Your task to perform on an android device: Go to Yahoo.com Image 0: 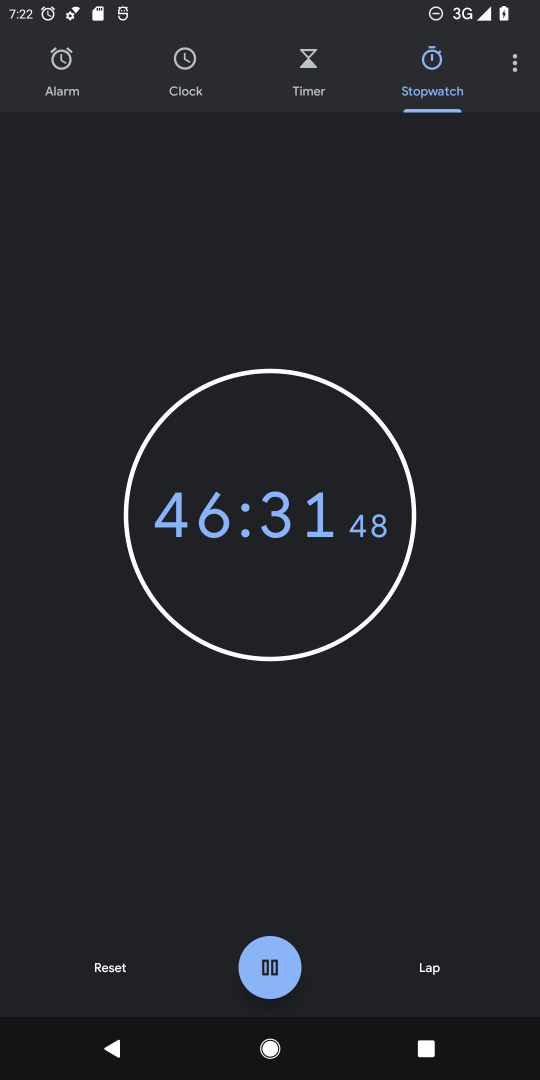
Step 0: press home button
Your task to perform on an android device: Go to Yahoo.com Image 1: 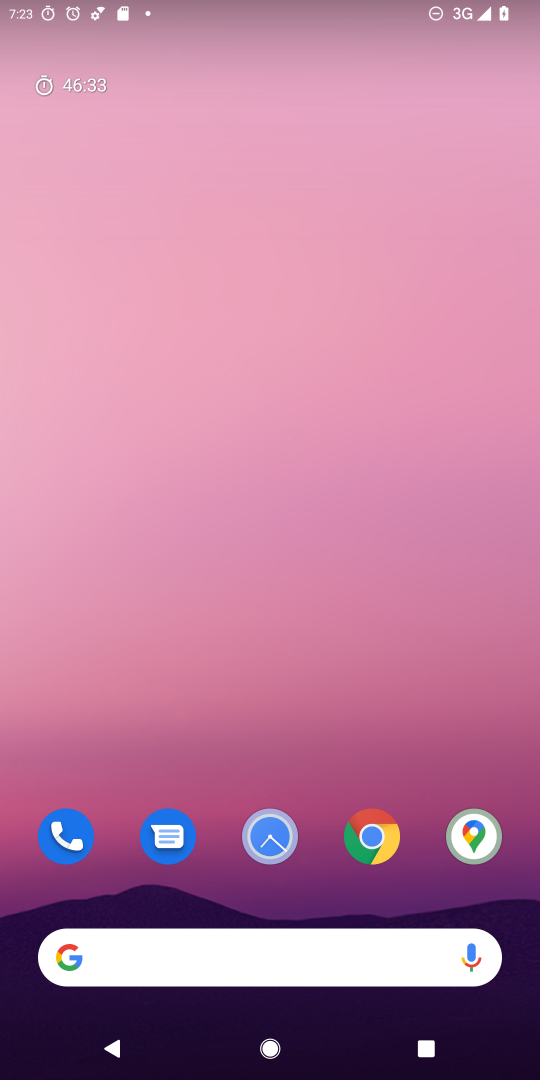
Step 1: drag from (330, 868) to (367, 213)
Your task to perform on an android device: Go to Yahoo.com Image 2: 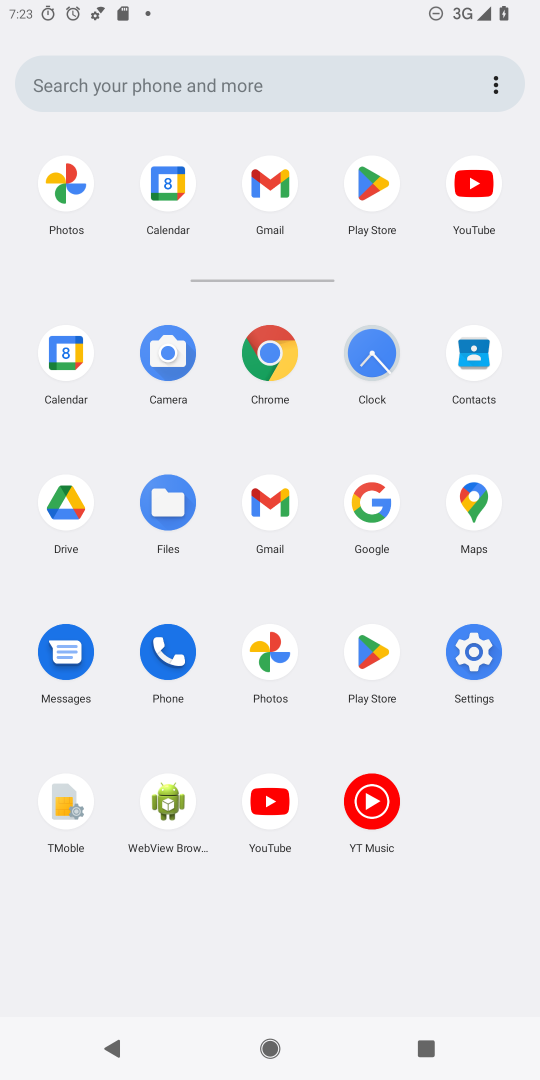
Step 2: click (284, 345)
Your task to perform on an android device: Go to Yahoo.com Image 3: 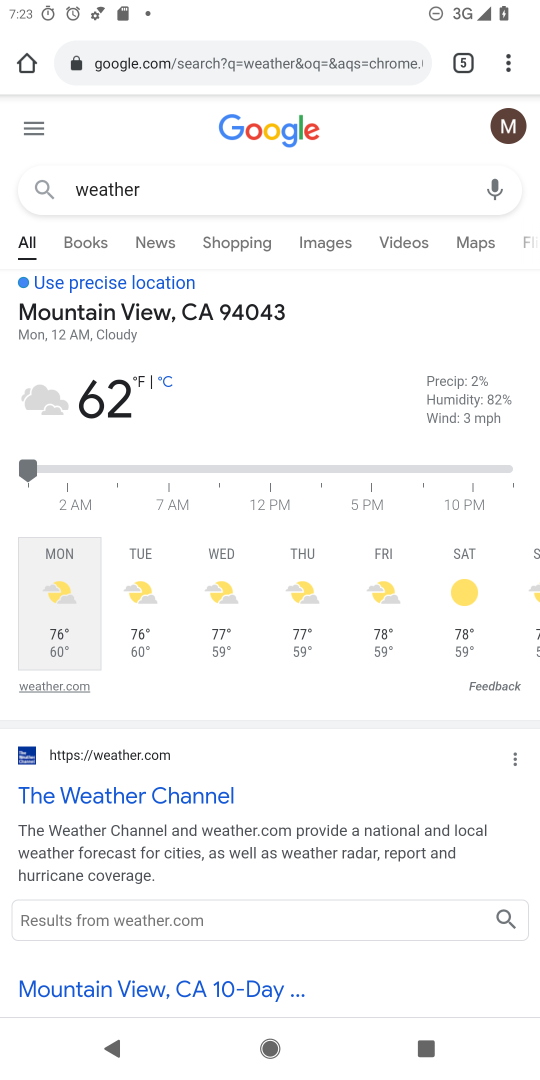
Step 3: click (460, 74)
Your task to perform on an android device: Go to Yahoo.com Image 4: 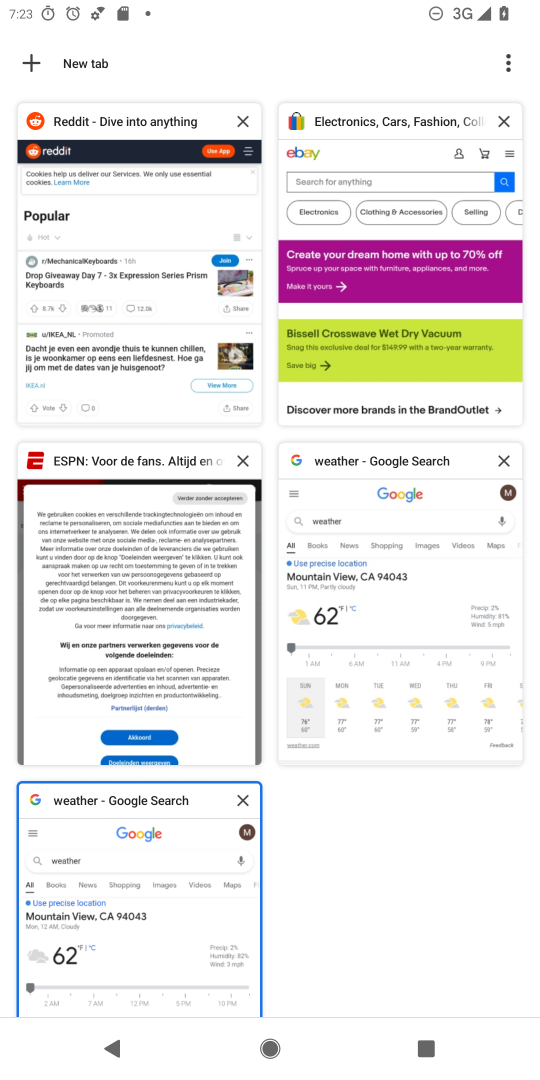
Step 4: click (40, 53)
Your task to perform on an android device: Go to Yahoo.com Image 5: 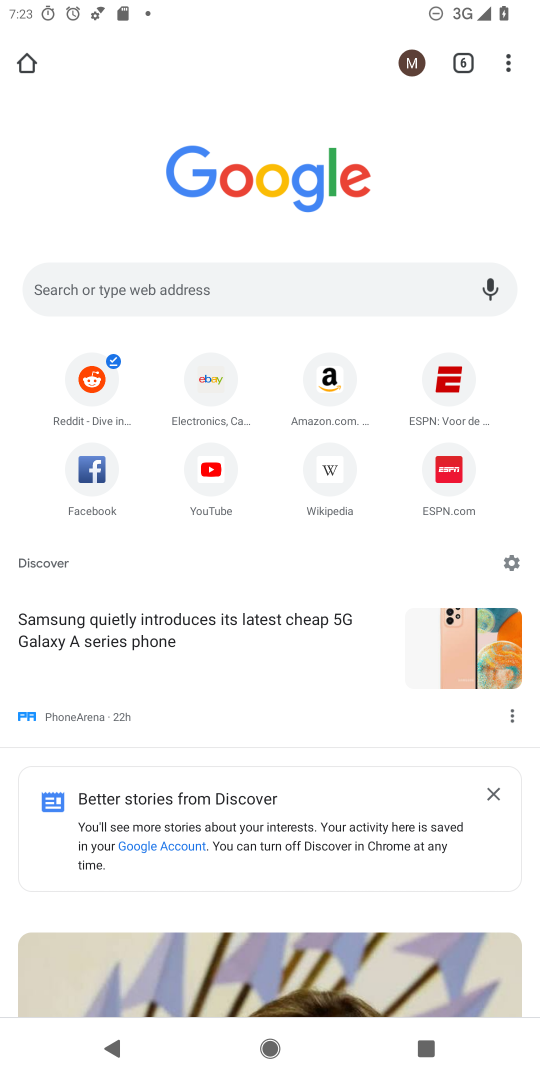
Step 5: click (320, 280)
Your task to perform on an android device: Go to Yahoo.com Image 6: 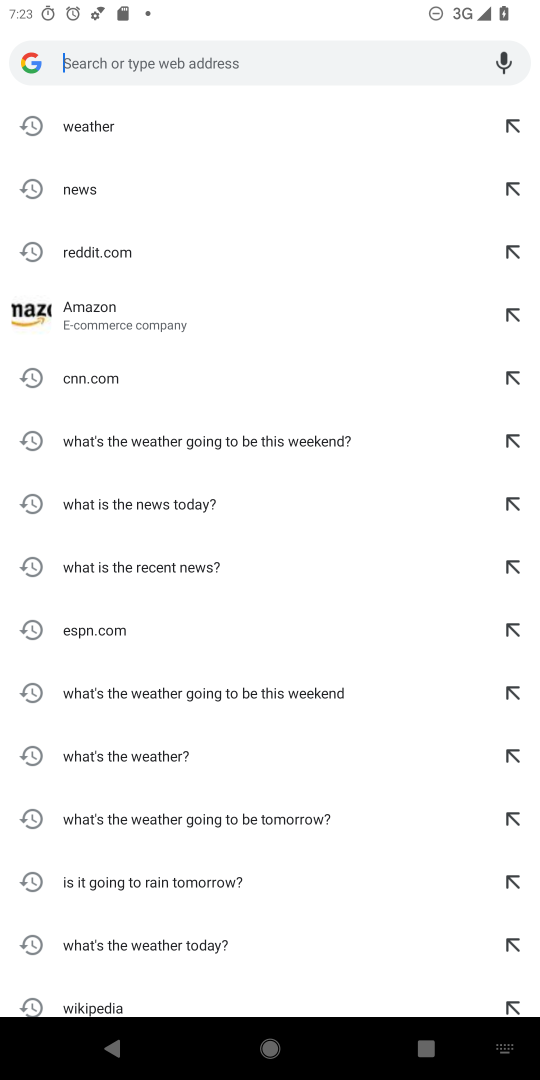
Step 6: type "Yahoo.com"
Your task to perform on an android device: Go to Yahoo.com Image 7: 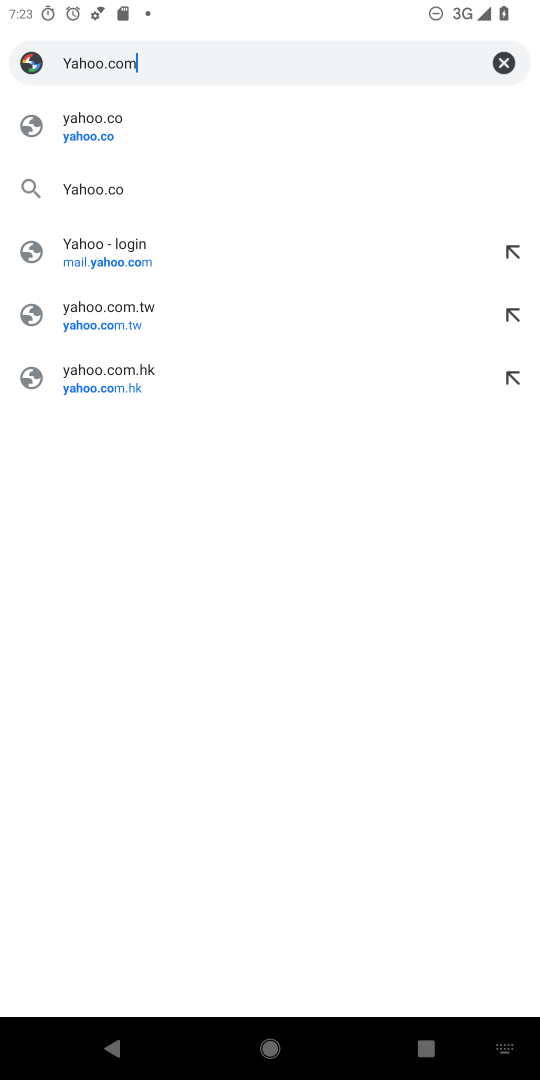
Step 7: type ""
Your task to perform on an android device: Go to Yahoo.com Image 8: 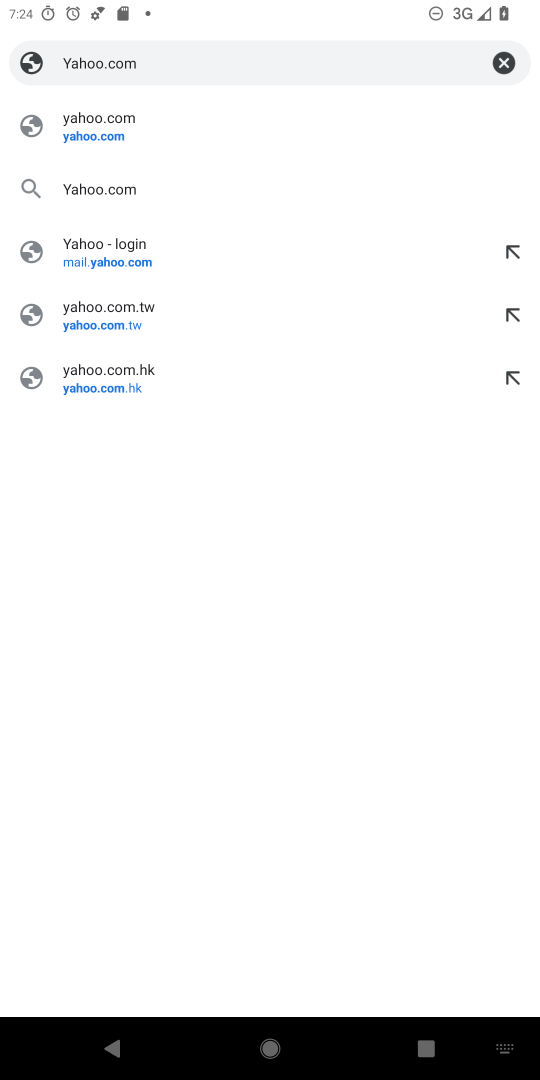
Step 8: click (219, 126)
Your task to perform on an android device: Go to Yahoo.com Image 9: 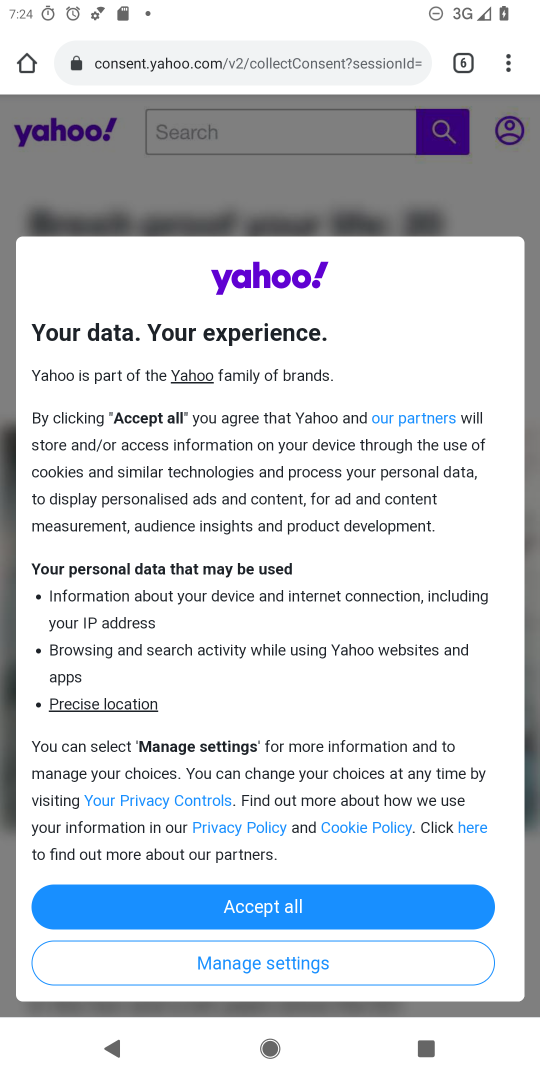
Step 9: task complete